Your task to perform on an android device: Open location settings Image 0: 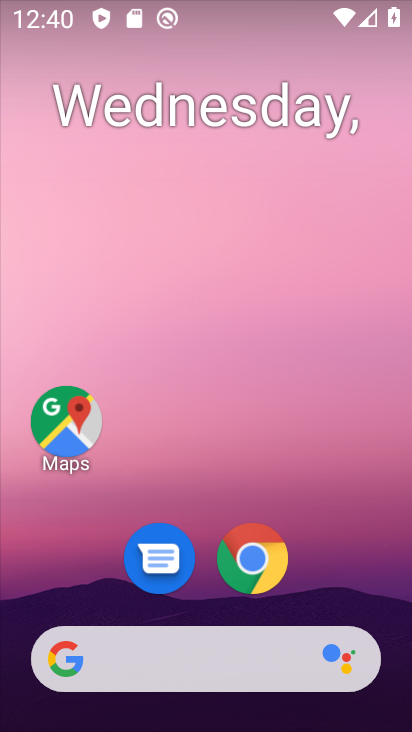
Step 0: drag from (351, 565) to (313, 237)
Your task to perform on an android device: Open location settings Image 1: 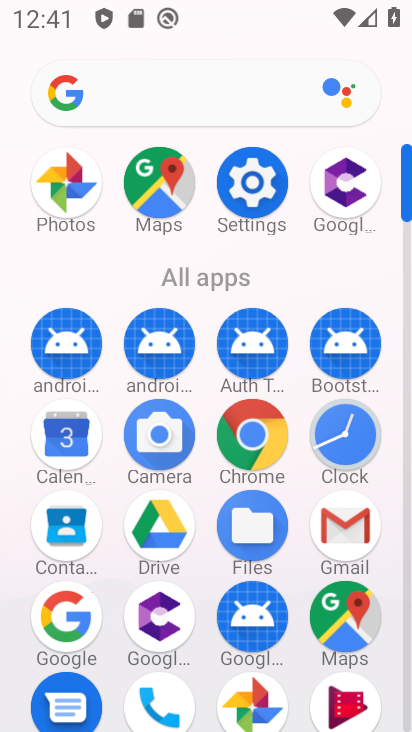
Step 1: click (248, 209)
Your task to perform on an android device: Open location settings Image 2: 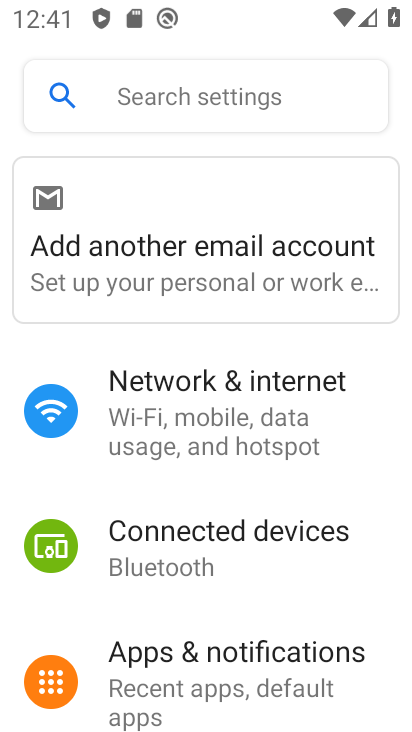
Step 2: drag from (280, 503) to (255, 230)
Your task to perform on an android device: Open location settings Image 3: 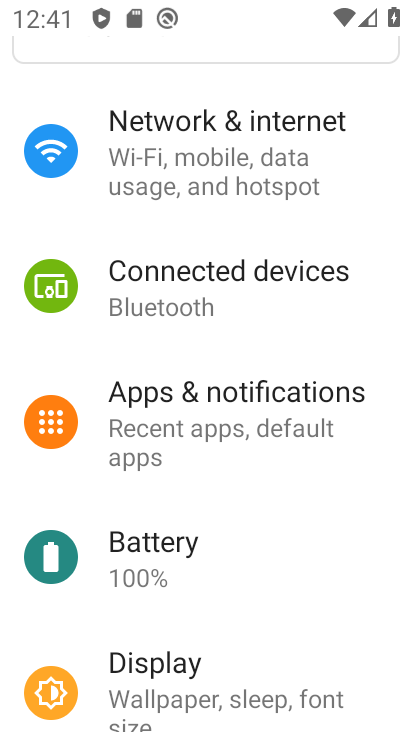
Step 3: drag from (245, 519) to (237, 247)
Your task to perform on an android device: Open location settings Image 4: 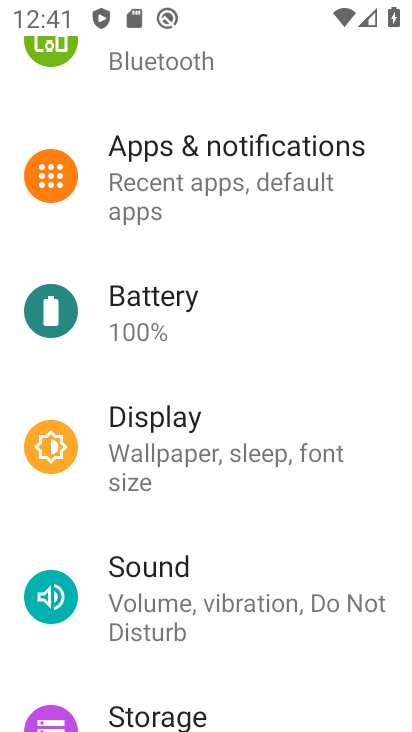
Step 4: drag from (250, 647) to (260, 403)
Your task to perform on an android device: Open location settings Image 5: 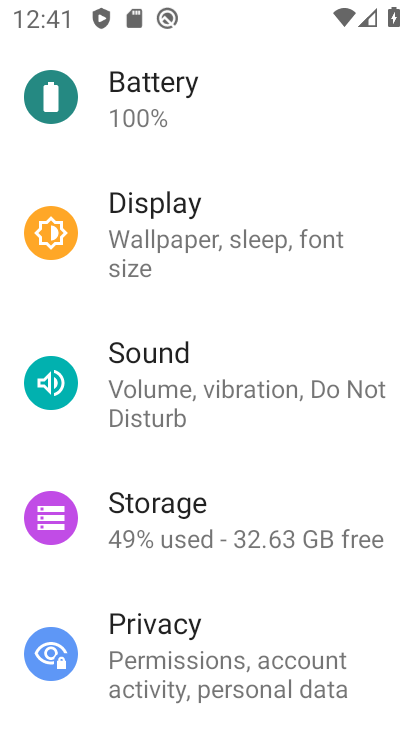
Step 5: drag from (181, 481) to (186, 124)
Your task to perform on an android device: Open location settings Image 6: 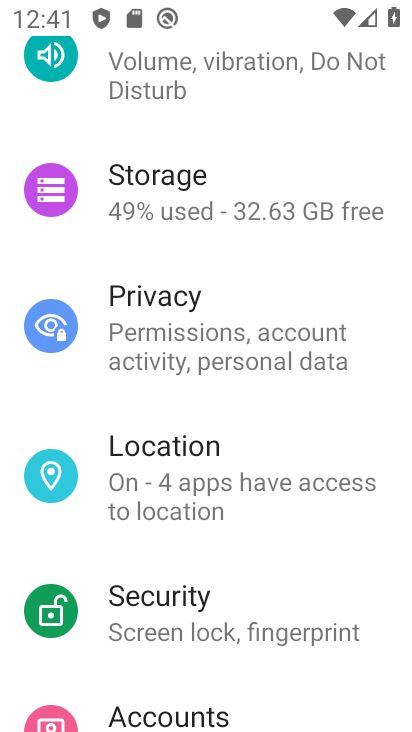
Step 6: click (164, 470)
Your task to perform on an android device: Open location settings Image 7: 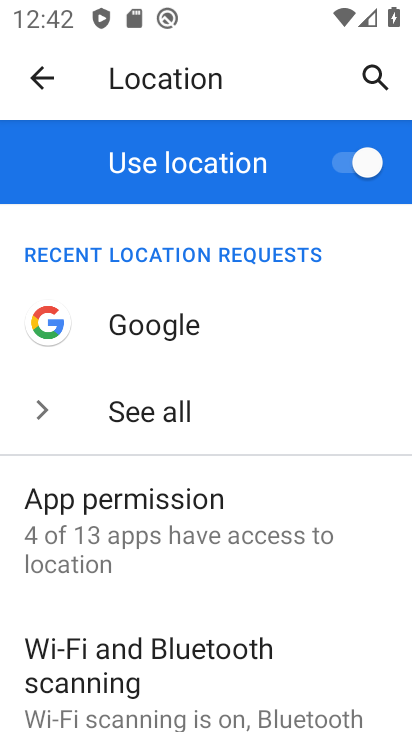
Step 7: task complete